Your task to perform on an android device: move an email to a new category in the gmail app Image 0: 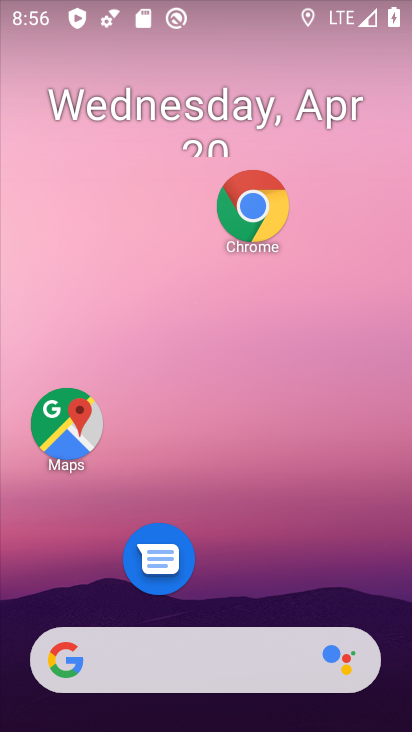
Step 0: drag from (272, 566) to (288, 163)
Your task to perform on an android device: move an email to a new category in the gmail app Image 1: 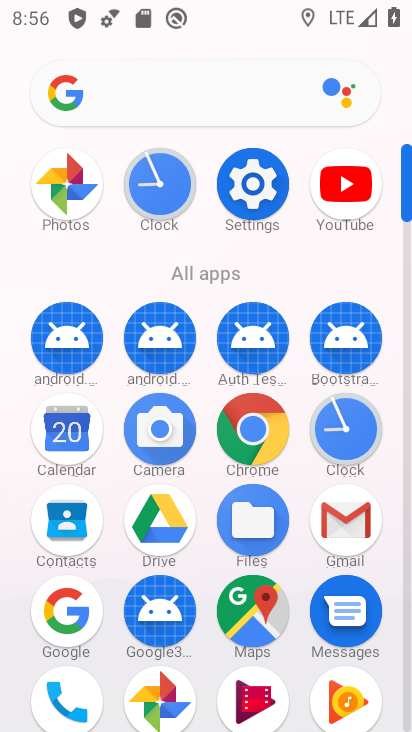
Step 1: click (340, 529)
Your task to perform on an android device: move an email to a new category in the gmail app Image 2: 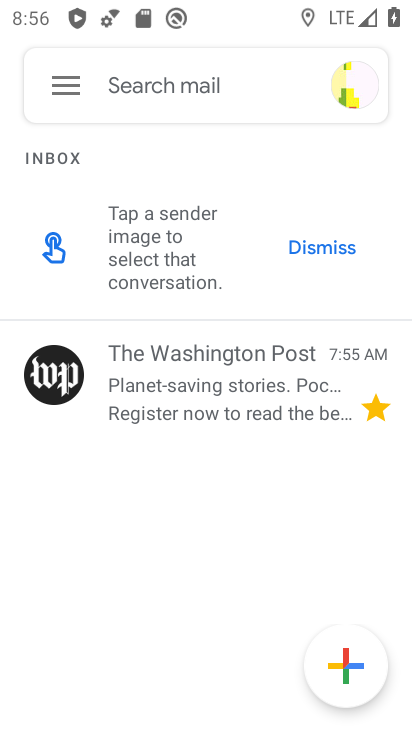
Step 2: click (56, 374)
Your task to perform on an android device: move an email to a new category in the gmail app Image 3: 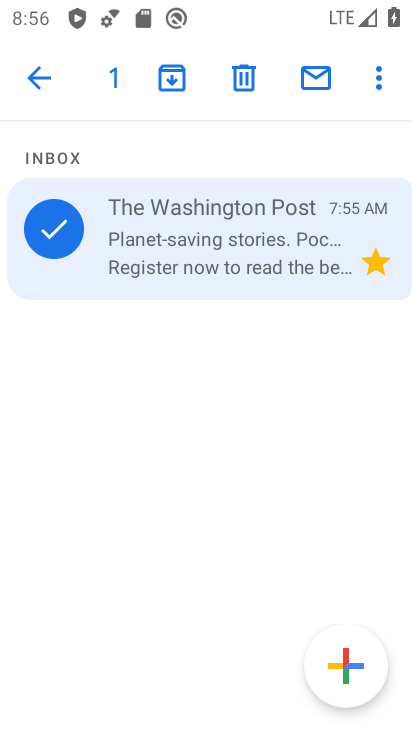
Step 3: click (376, 65)
Your task to perform on an android device: move an email to a new category in the gmail app Image 4: 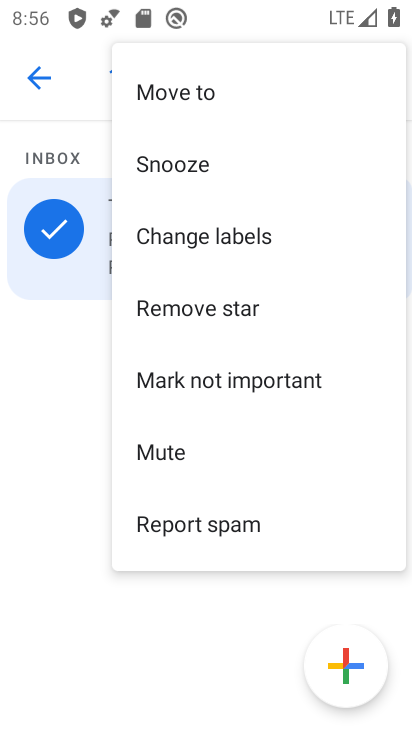
Step 4: click (203, 95)
Your task to perform on an android device: move an email to a new category in the gmail app Image 5: 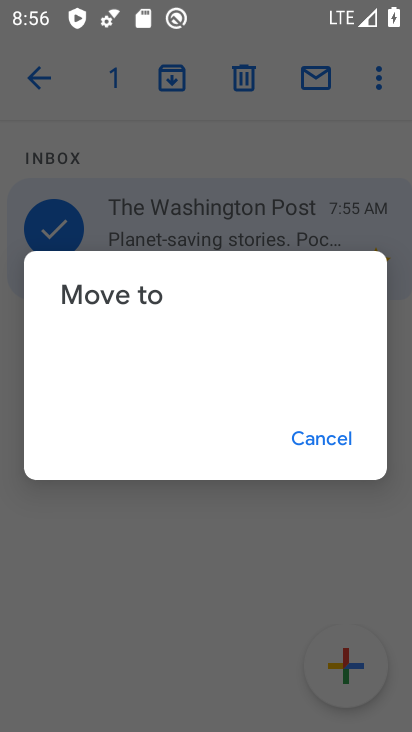
Step 5: click (316, 445)
Your task to perform on an android device: move an email to a new category in the gmail app Image 6: 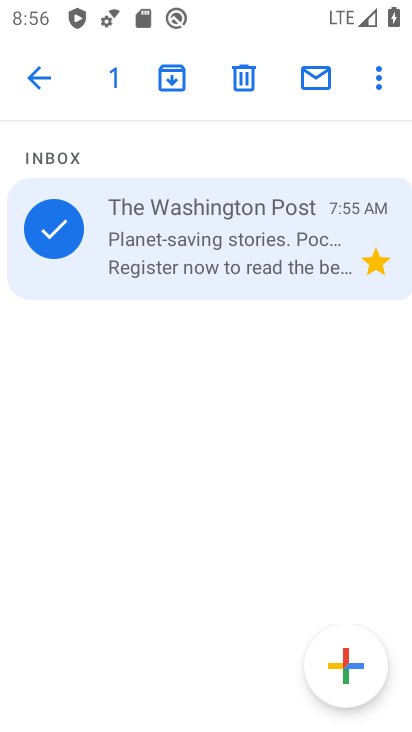
Step 6: click (385, 78)
Your task to perform on an android device: move an email to a new category in the gmail app Image 7: 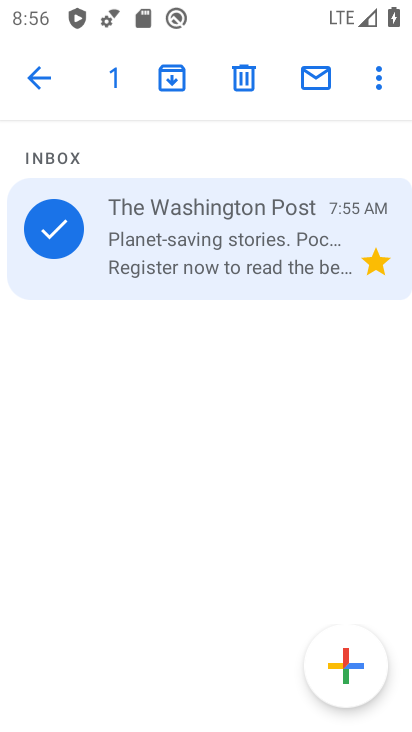
Step 7: click (383, 81)
Your task to perform on an android device: move an email to a new category in the gmail app Image 8: 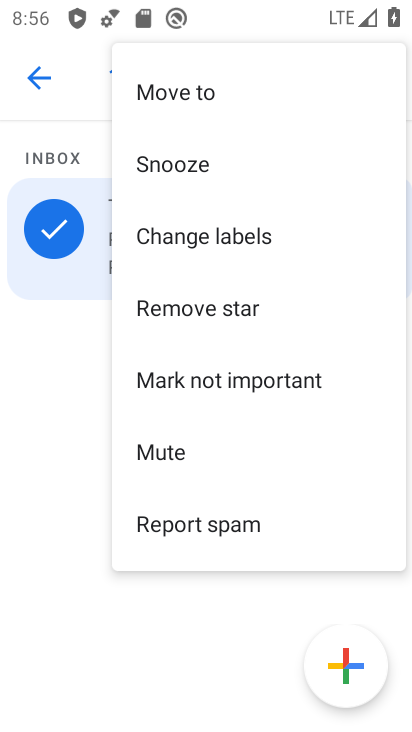
Step 8: click (258, 235)
Your task to perform on an android device: move an email to a new category in the gmail app Image 9: 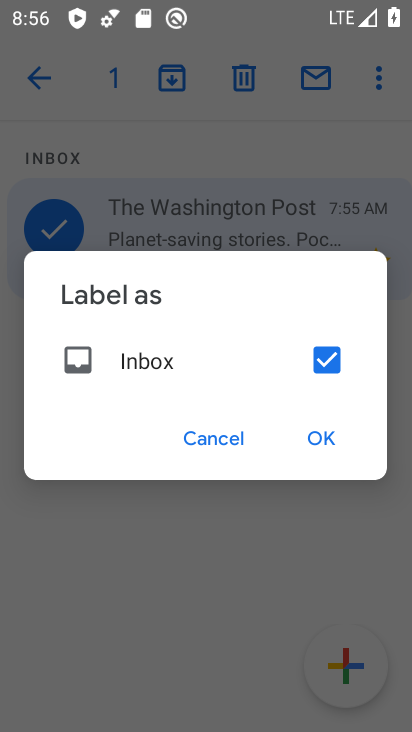
Step 9: click (323, 444)
Your task to perform on an android device: move an email to a new category in the gmail app Image 10: 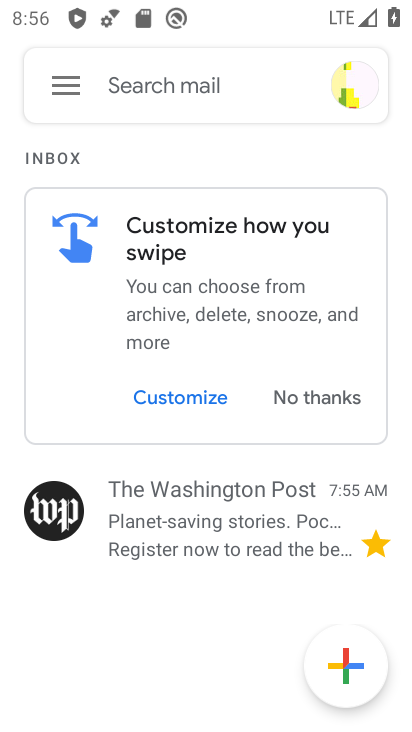
Step 10: task complete